Your task to perform on an android device: Is it going to rain this weekend? Image 0: 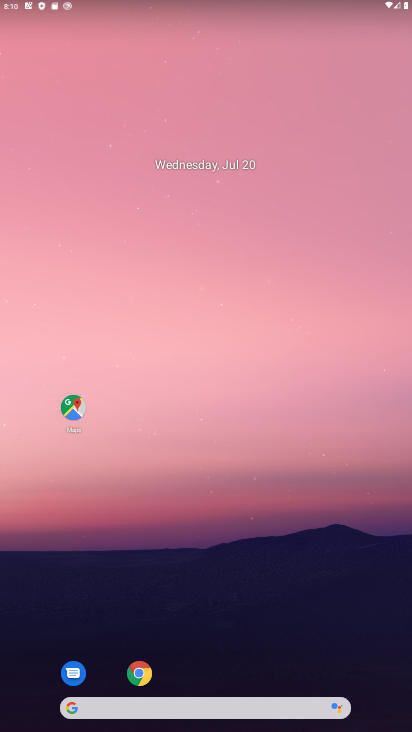
Step 0: drag from (216, 637) to (239, 92)
Your task to perform on an android device: Is it going to rain this weekend? Image 1: 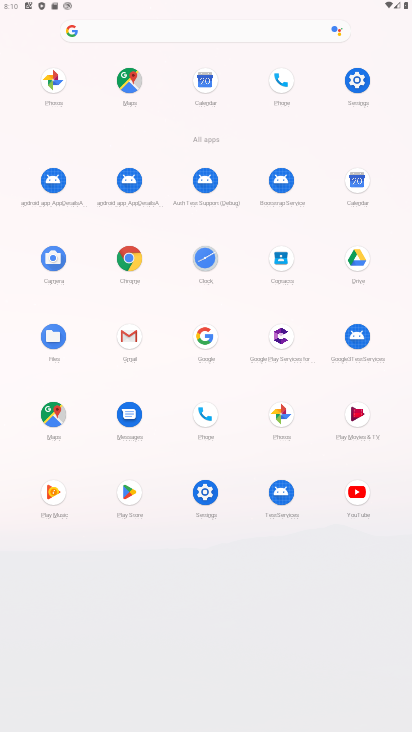
Step 1: click (360, 177)
Your task to perform on an android device: Is it going to rain this weekend? Image 2: 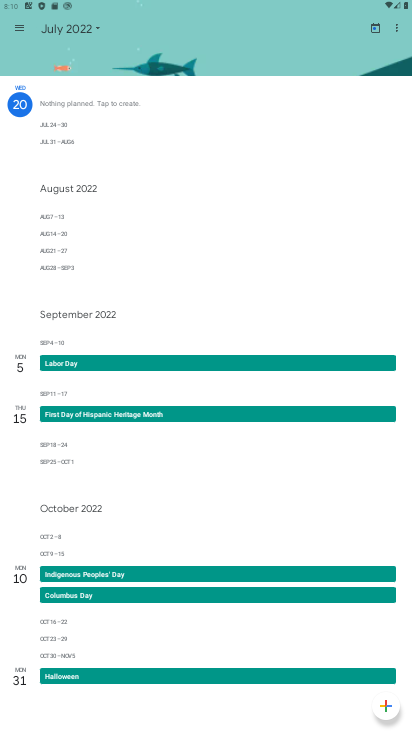
Step 2: press home button
Your task to perform on an android device: Is it going to rain this weekend? Image 3: 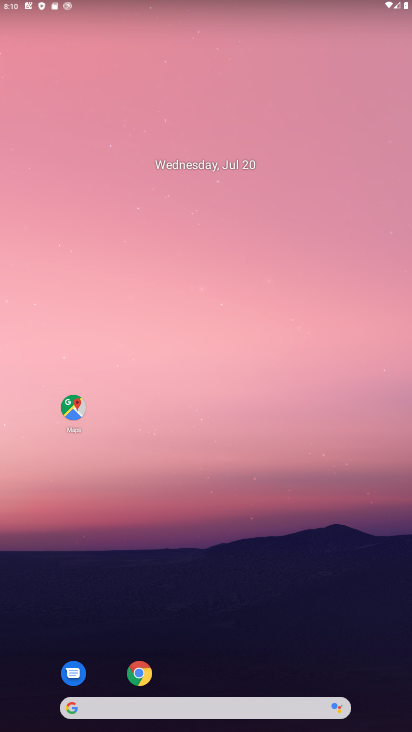
Step 3: drag from (198, 639) to (198, 282)
Your task to perform on an android device: Is it going to rain this weekend? Image 4: 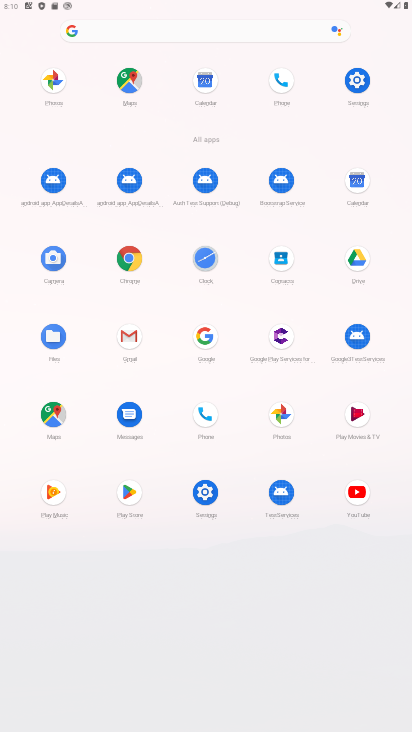
Step 4: click (220, 27)
Your task to perform on an android device: Is it going to rain this weekend? Image 5: 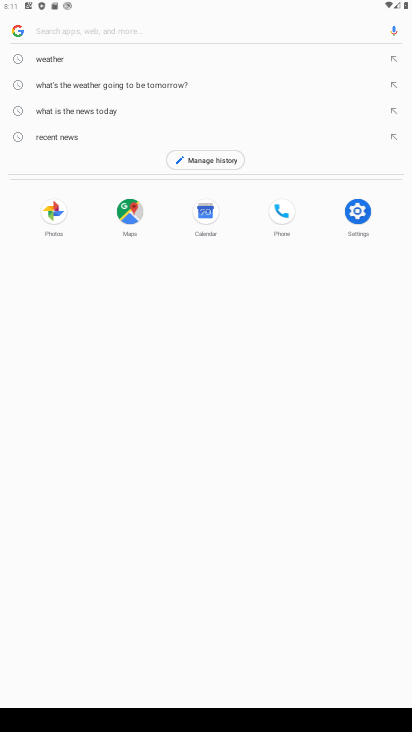
Step 5: click (73, 34)
Your task to perform on an android device: Is it going to rain this weekend? Image 6: 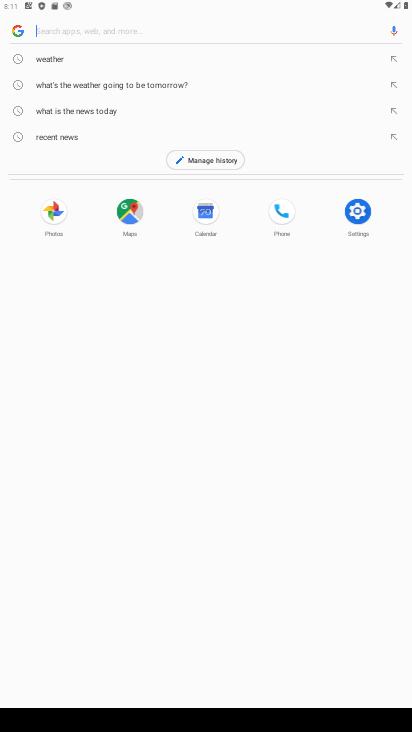
Step 6: type "Is it going to rain this weekend?"
Your task to perform on an android device: Is it going to rain this weekend? Image 7: 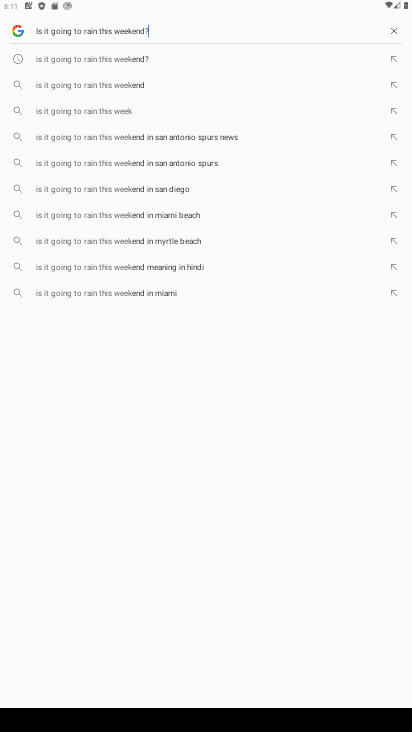
Step 7: type ""
Your task to perform on an android device: Is it going to rain this weekend? Image 8: 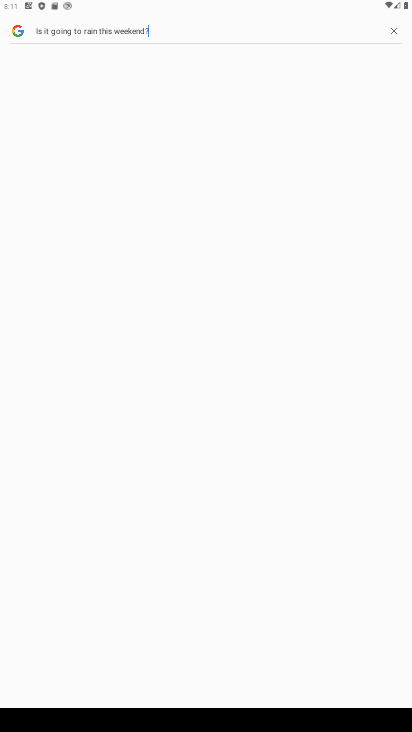
Step 8: drag from (271, 445) to (328, 82)
Your task to perform on an android device: Is it going to rain this weekend? Image 9: 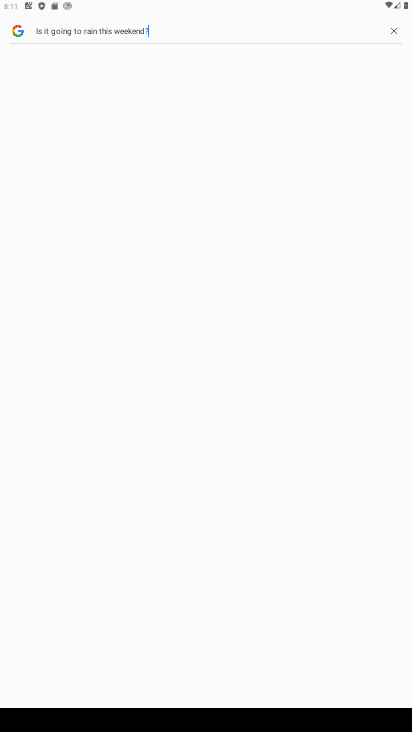
Step 9: drag from (195, 27) to (184, 93)
Your task to perform on an android device: Is it going to rain this weekend? Image 10: 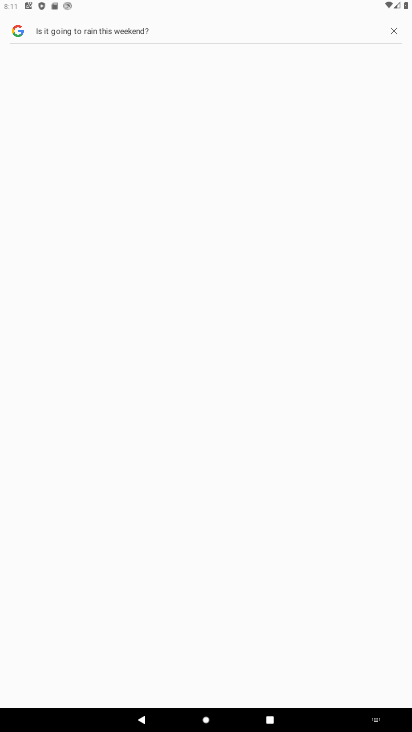
Step 10: click (271, 111)
Your task to perform on an android device: Is it going to rain this weekend? Image 11: 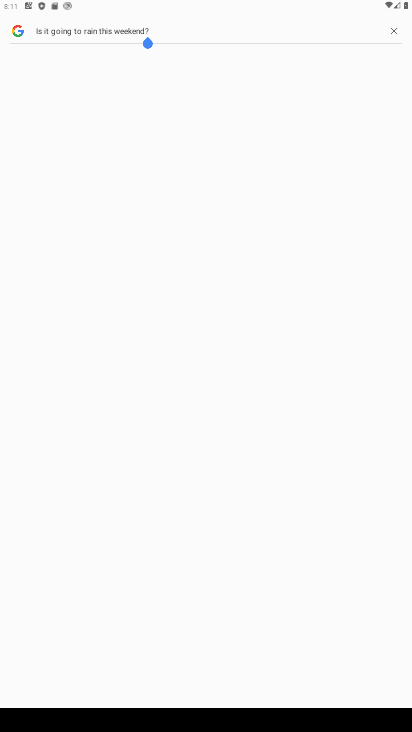
Step 11: click (243, 386)
Your task to perform on an android device: Is it going to rain this weekend? Image 12: 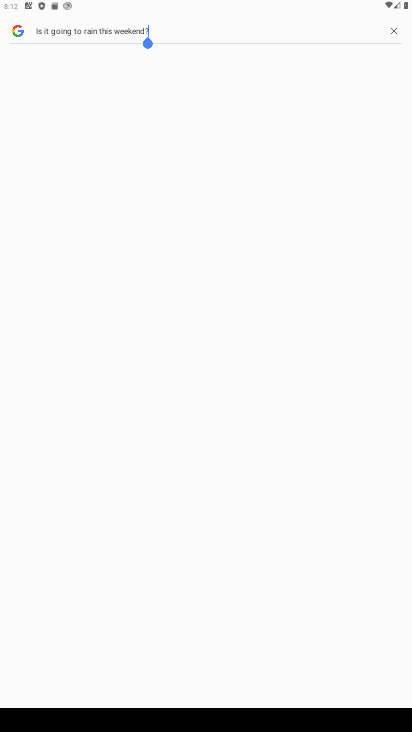
Step 12: task complete